Your task to perform on an android device: Open calendar and show me the second week of next month Image 0: 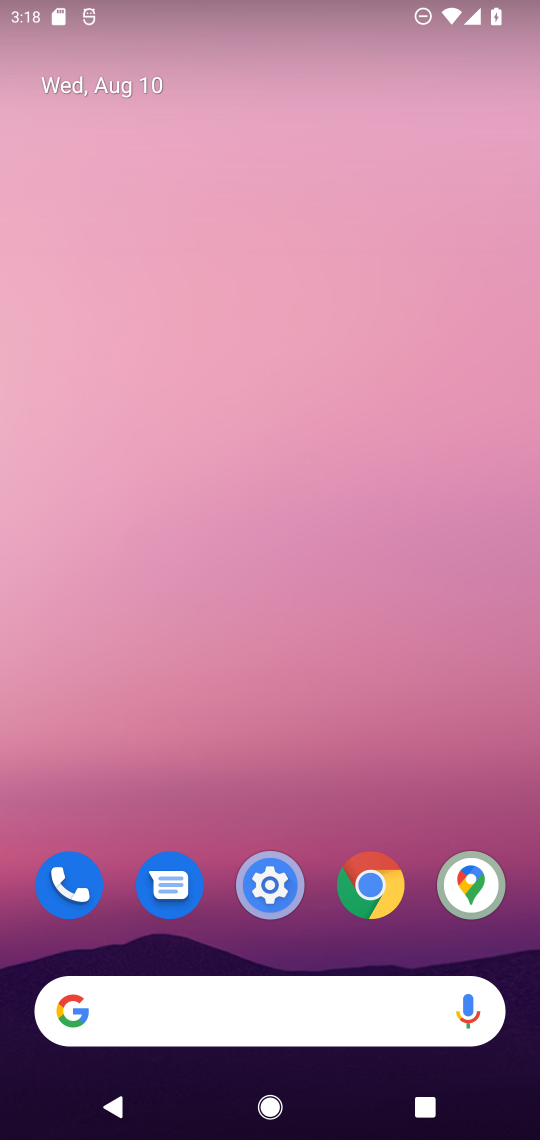
Step 0: drag from (329, 952) to (329, 60)
Your task to perform on an android device: Open calendar and show me the second week of next month Image 1: 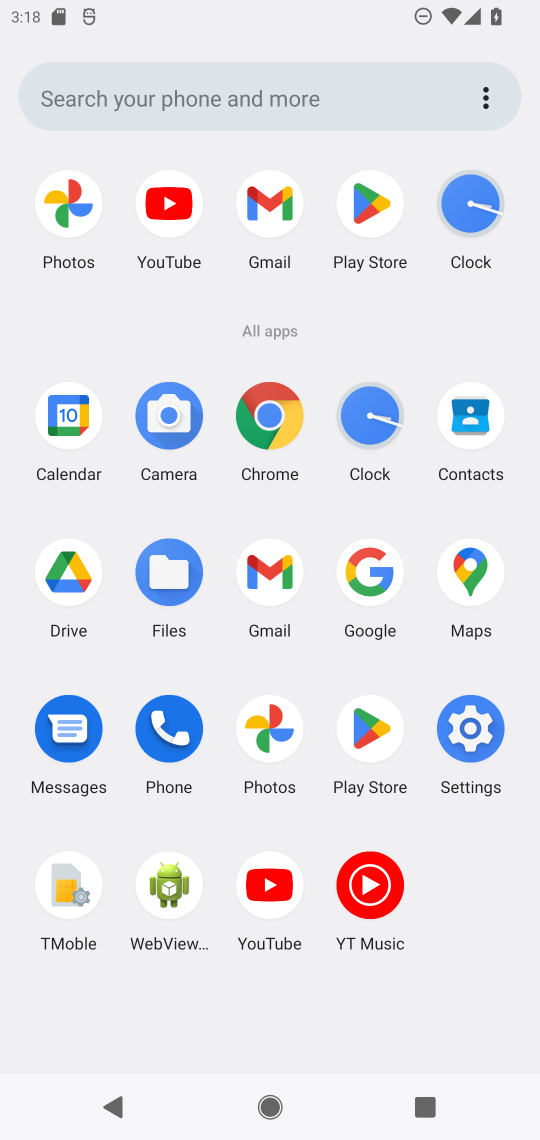
Step 1: click (74, 414)
Your task to perform on an android device: Open calendar and show me the second week of next month Image 2: 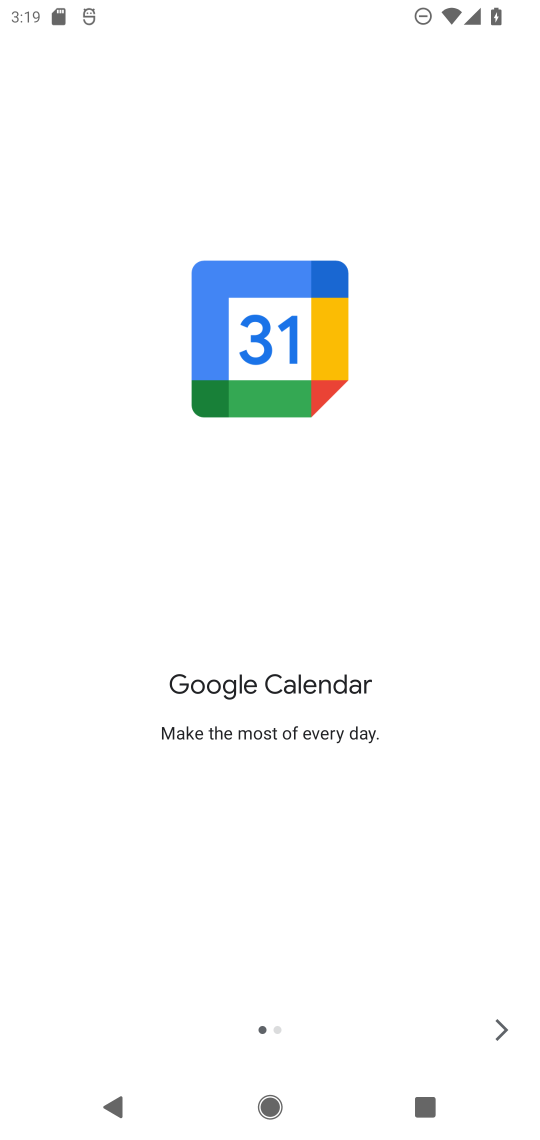
Step 2: click (502, 1017)
Your task to perform on an android device: Open calendar and show me the second week of next month Image 3: 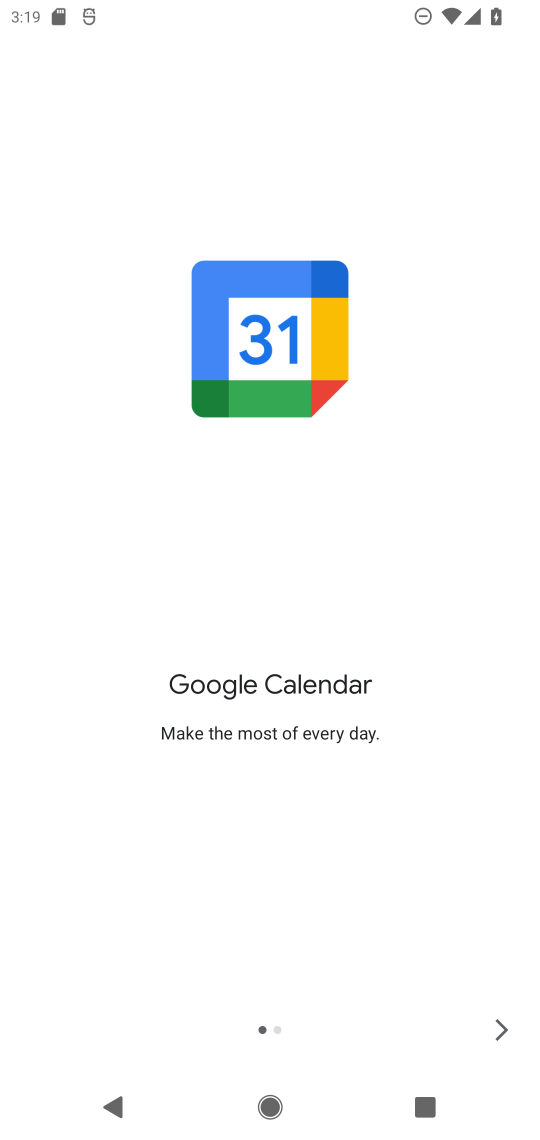
Step 3: click (502, 1017)
Your task to perform on an android device: Open calendar and show me the second week of next month Image 4: 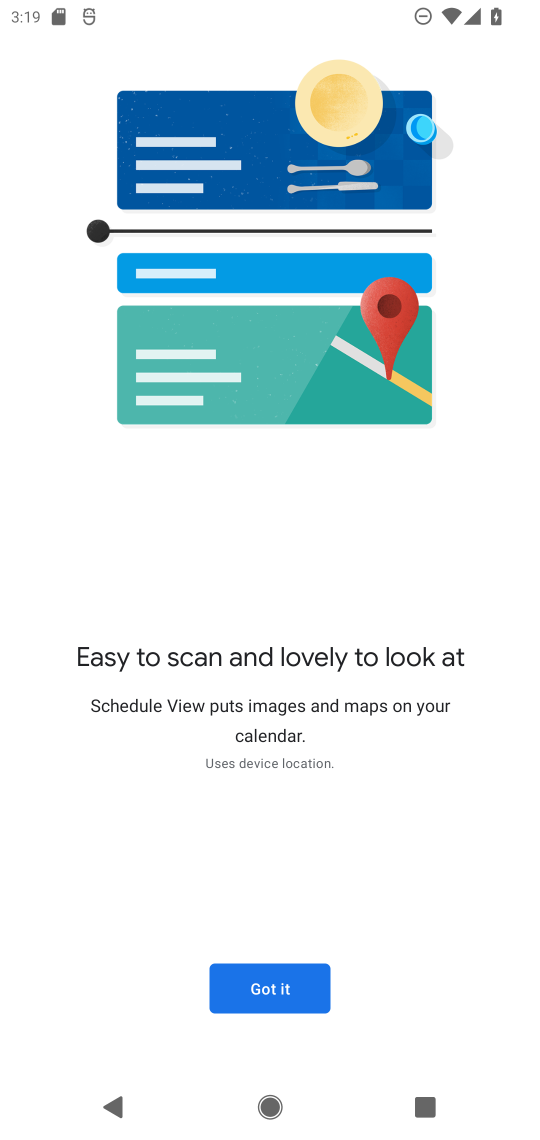
Step 4: click (291, 980)
Your task to perform on an android device: Open calendar and show me the second week of next month Image 5: 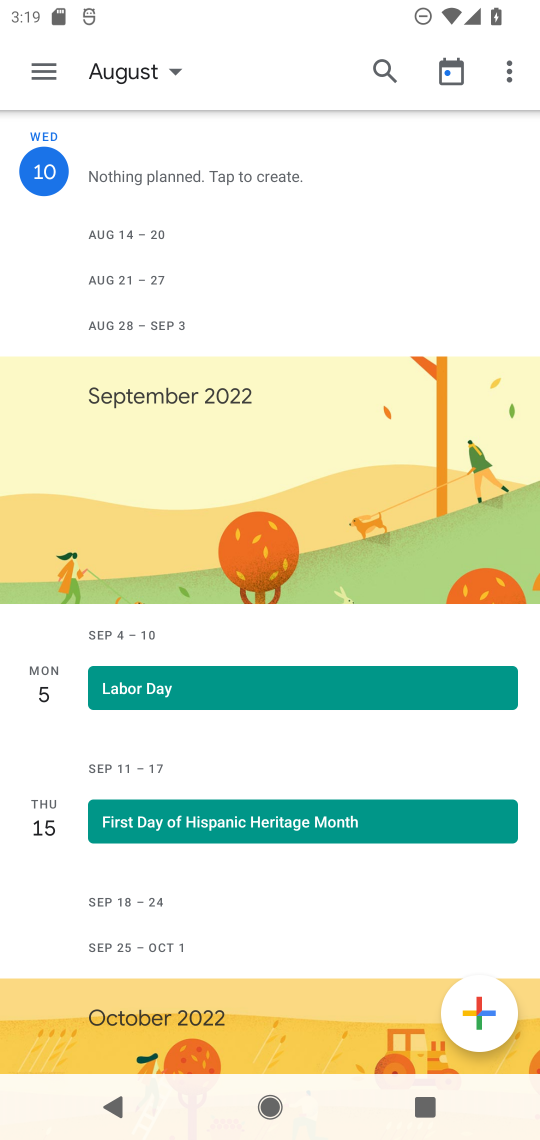
Step 5: click (43, 71)
Your task to perform on an android device: Open calendar and show me the second week of next month Image 6: 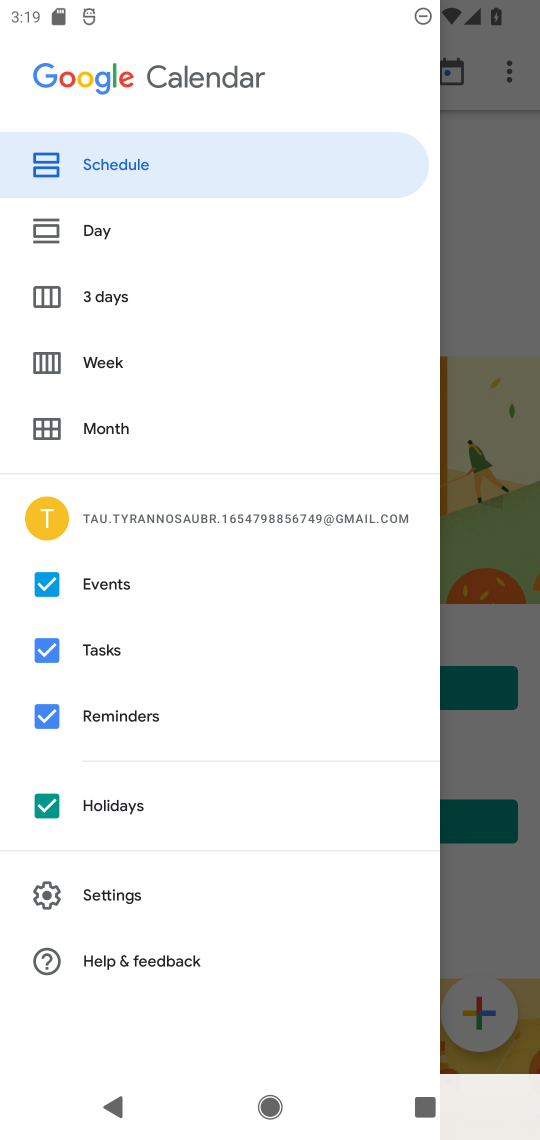
Step 6: click (106, 357)
Your task to perform on an android device: Open calendar and show me the second week of next month Image 7: 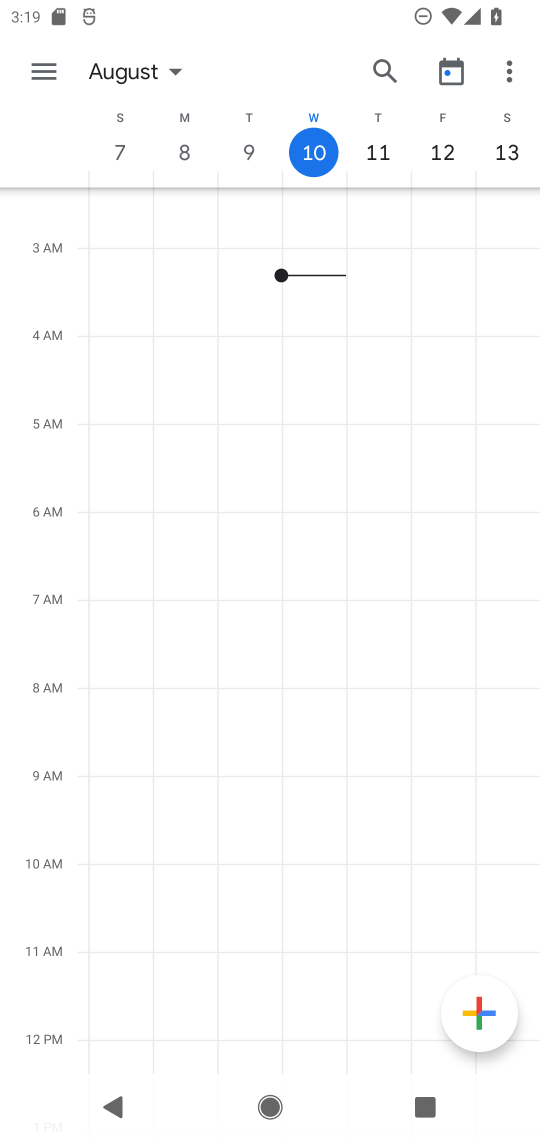
Step 7: click (171, 68)
Your task to perform on an android device: Open calendar and show me the second week of next month Image 8: 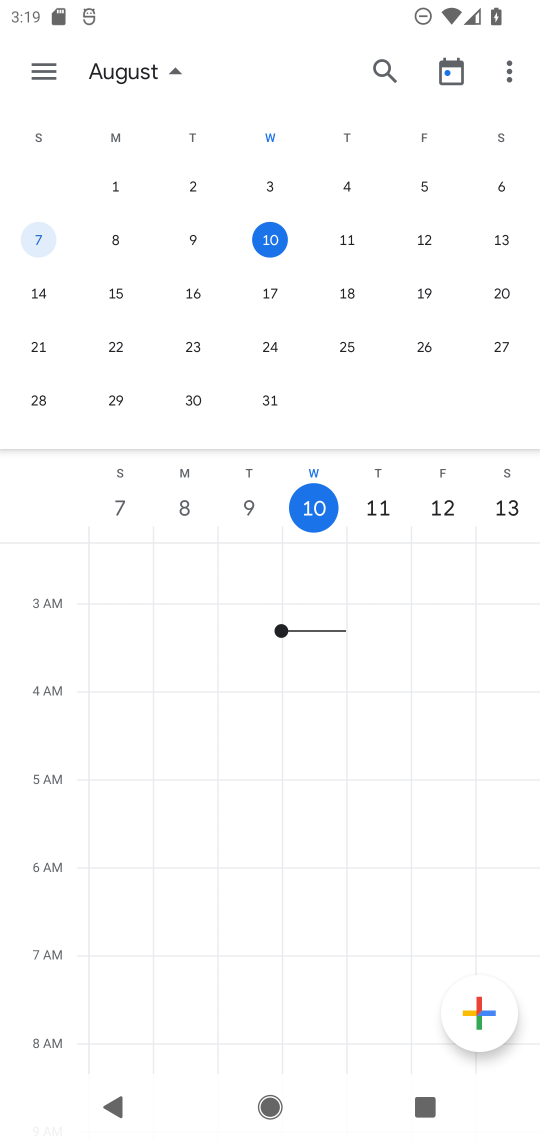
Step 8: drag from (472, 229) to (29, 314)
Your task to perform on an android device: Open calendar and show me the second week of next month Image 9: 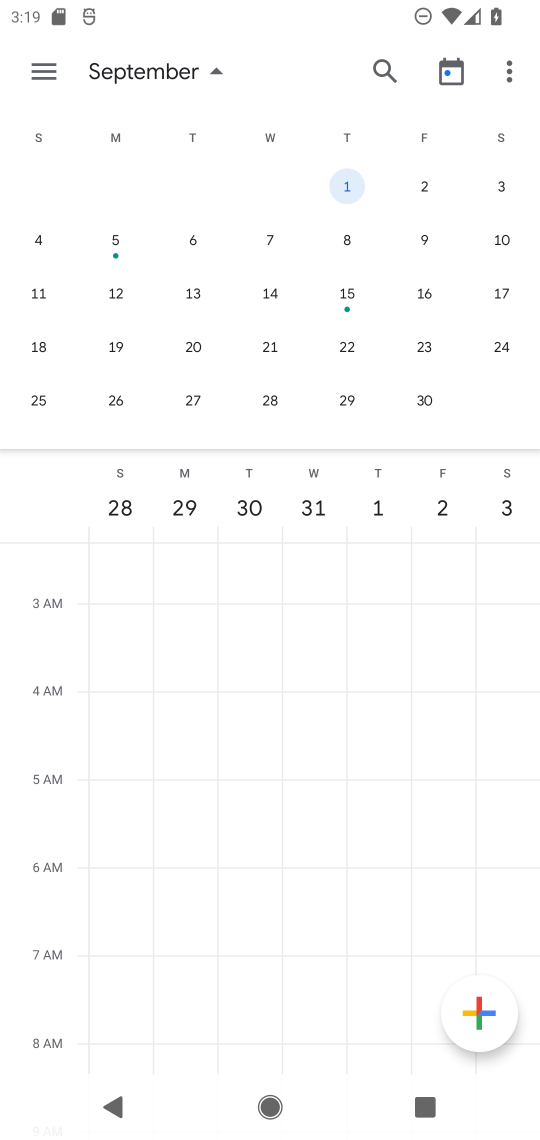
Step 9: click (342, 238)
Your task to perform on an android device: Open calendar and show me the second week of next month Image 10: 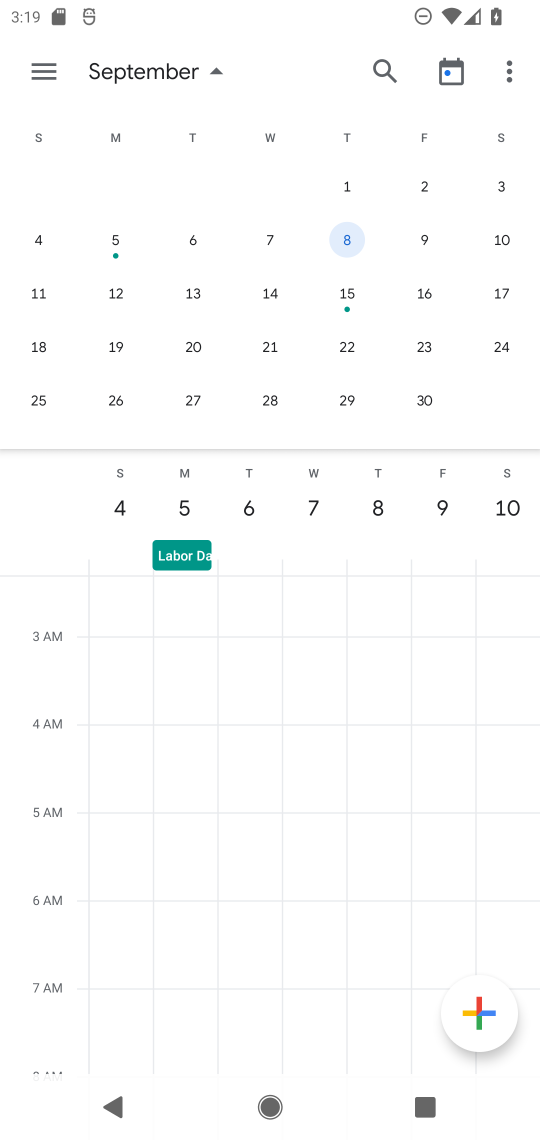
Step 10: task complete